Your task to perform on an android device: check the backup settings in the google photos Image 0: 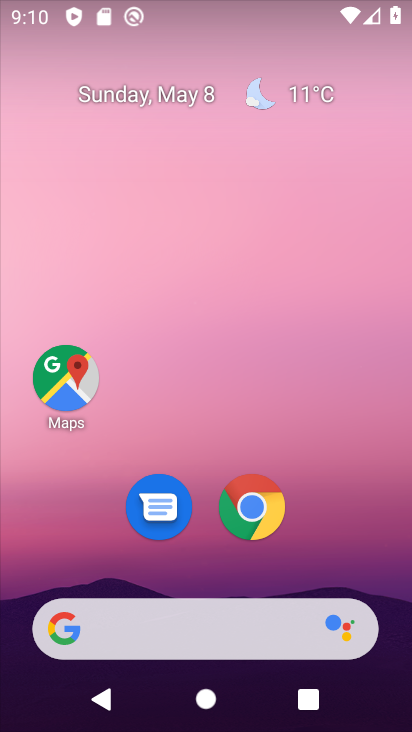
Step 0: drag from (177, 582) to (174, 76)
Your task to perform on an android device: check the backup settings in the google photos Image 1: 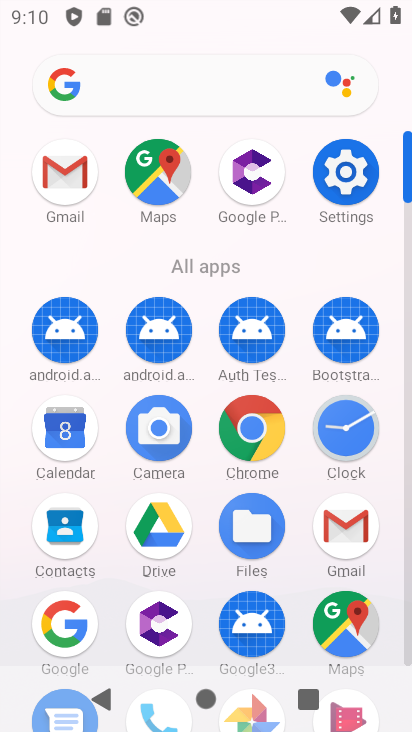
Step 1: drag from (280, 605) to (320, 295)
Your task to perform on an android device: check the backup settings in the google photos Image 2: 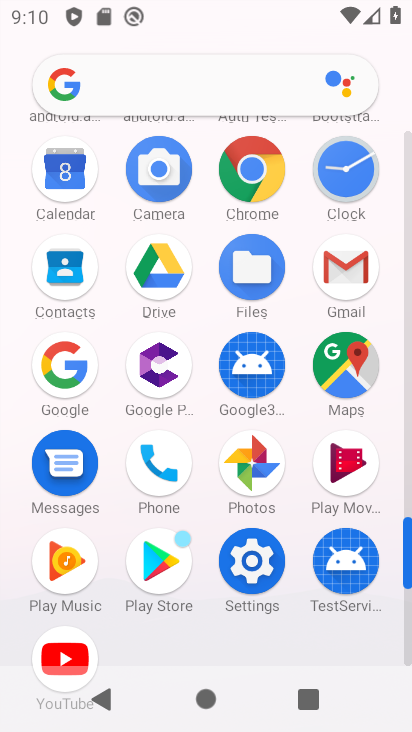
Step 2: click (259, 454)
Your task to perform on an android device: check the backup settings in the google photos Image 3: 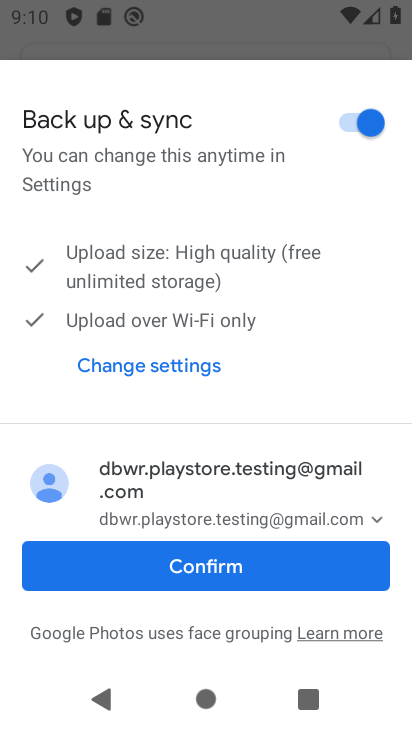
Step 3: click (246, 568)
Your task to perform on an android device: check the backup settings in the google photos Image 4: 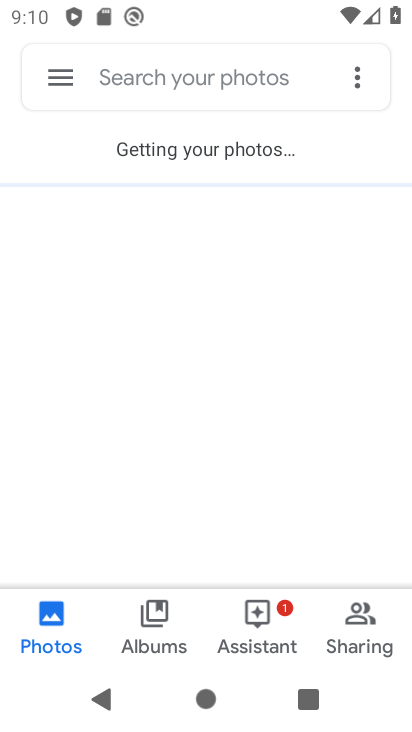
Step 4: click (70, 83)
Your task to perform on an android device: check the backup settings in the google photos Image 5: 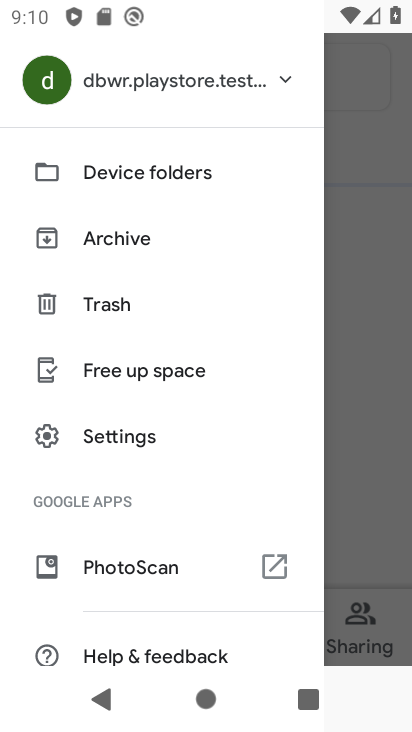
Step 5: click (172, 436)
Your task to perform on an android device: check the backup settings in the google photos Image 6: 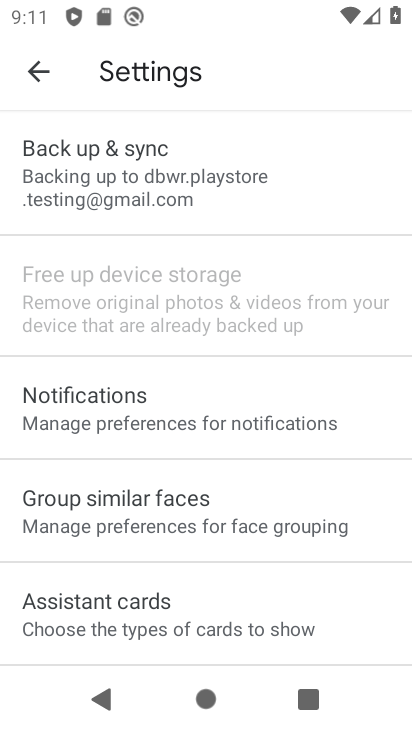
Step 6: click (237, 182)
Your task to perform on an android device: check the backup settings in the google photos Image 7: 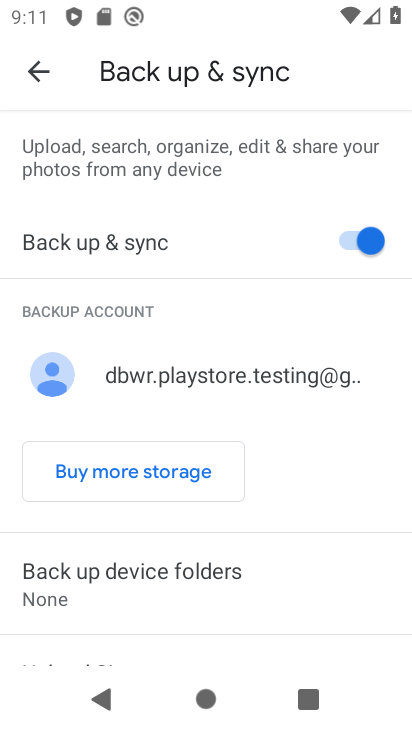
Step 7: task complete